Your task to perform on an android device: toggle pop-ups in chrome Image 0: 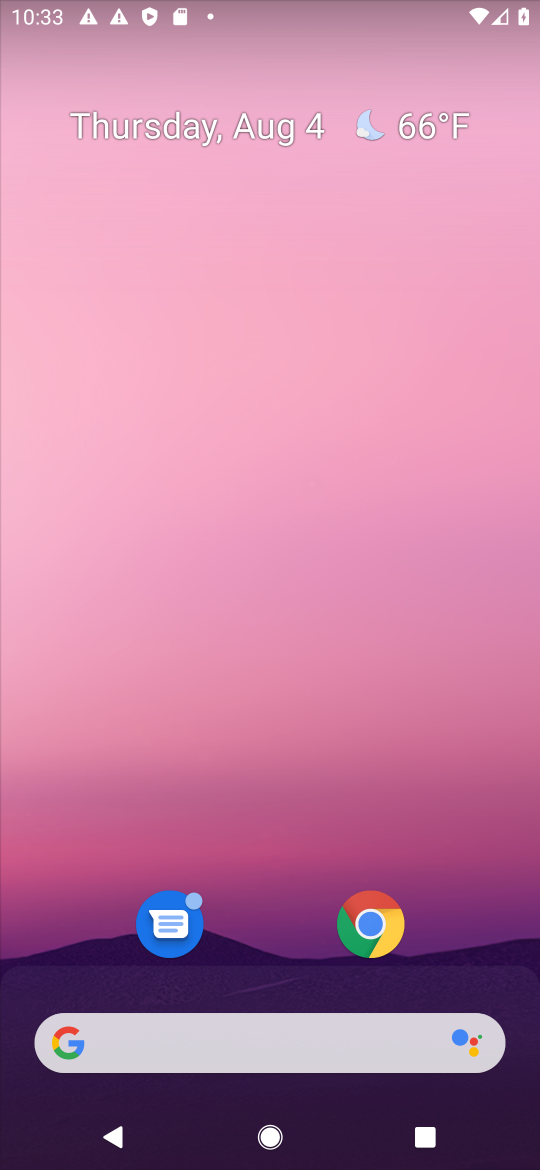
Step 0: click (375, 927)
Your task to perform on an android device: toggle pop-ups in chrome Image 1: 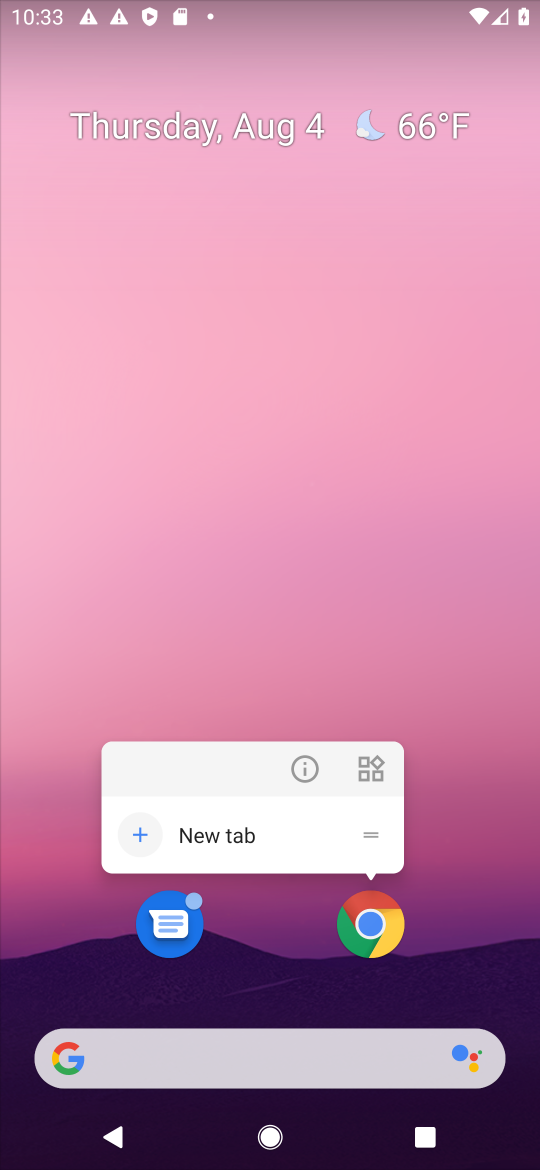
Step 1: click (382, 920)
Your task to perform on an android device: toggle pop-ups in chrome Image 2: 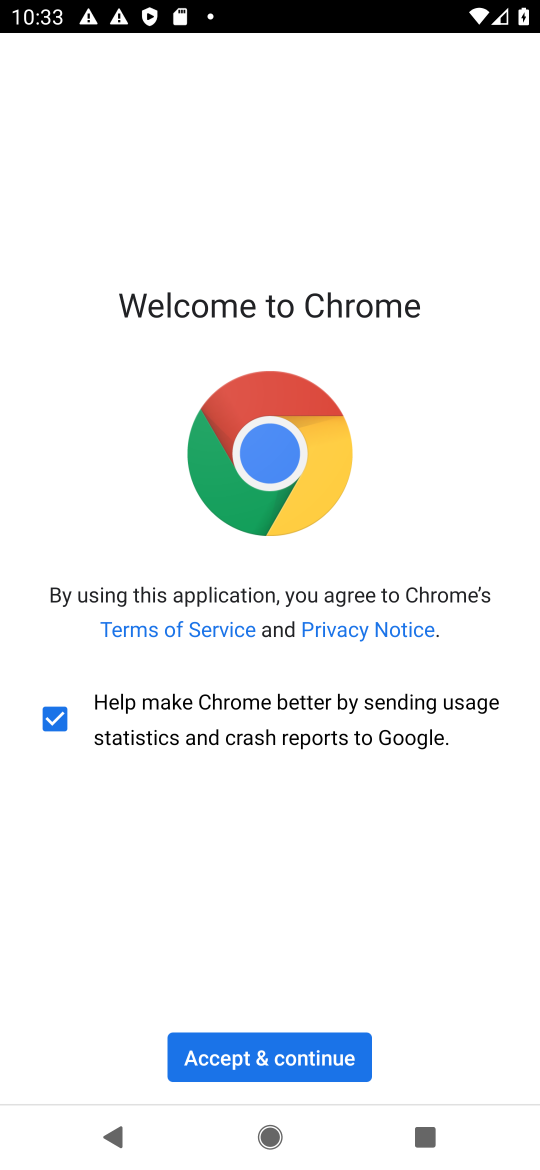
Step 2: click (303, 1057)
Your task to perform on an android device: toggle pop-ups in chrome Image 3: 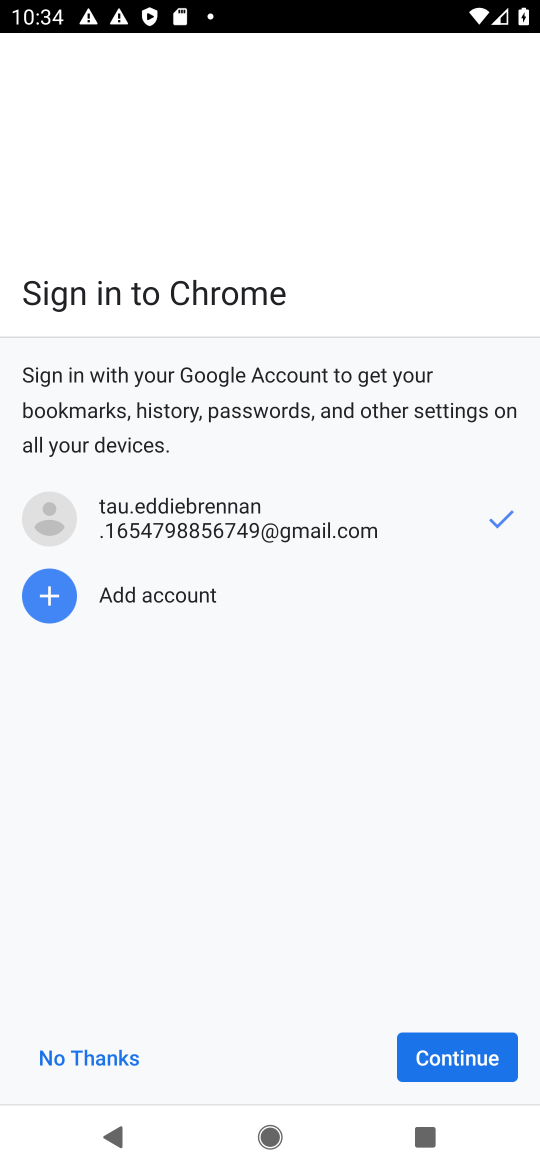
Step 3: click (471, 1060)
Your task to perform on an android device: toggle pop-ups in chrome Image 4: 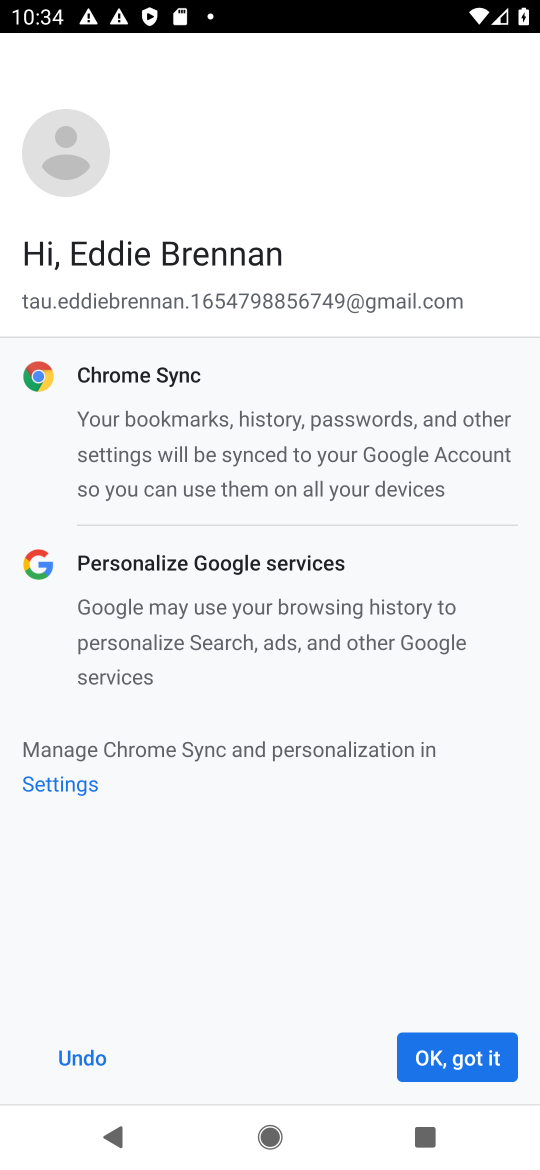
Step 4: click (458, 1055)
Your task to perform on an android device: toggle pop-ups in chrome Image 5: 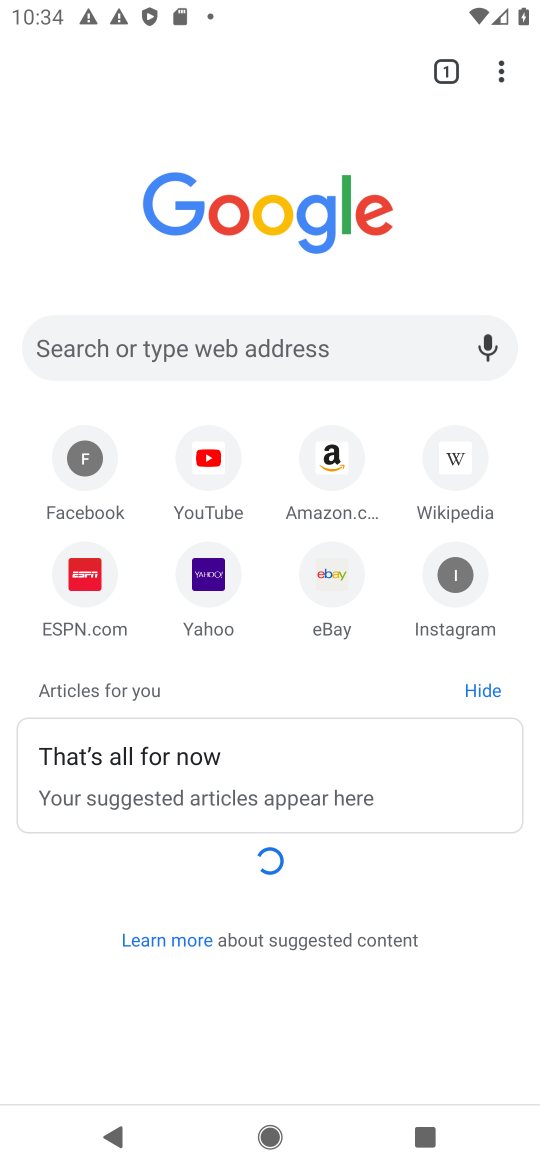
Step 5: drag from (498, 64) to (311, 605)
Your task to perform on an android device: toggle pop-ups in chrome Image 6: 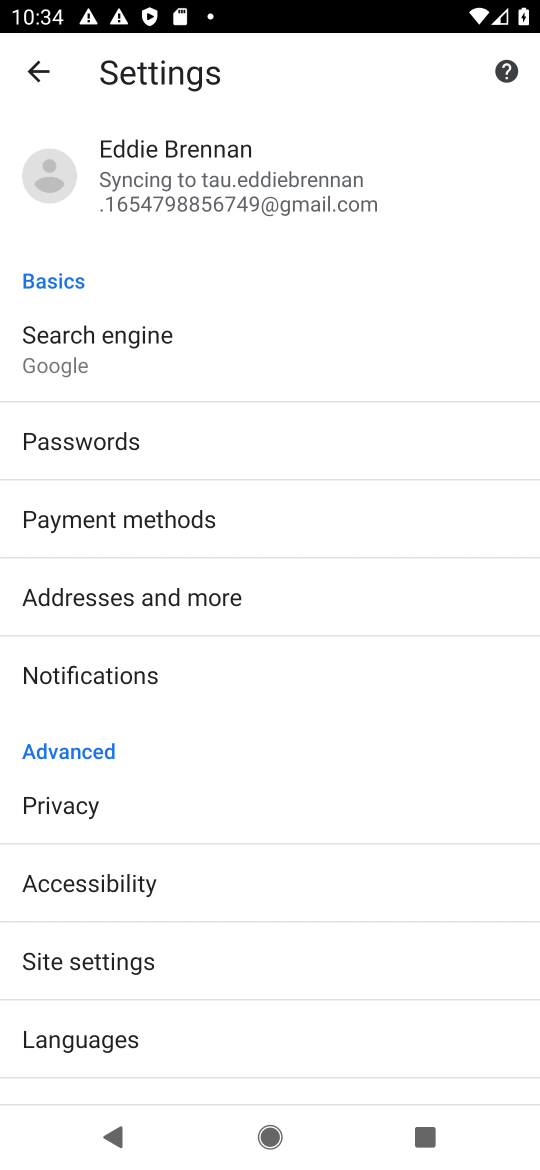
Step 6: drag from (178, 931) to (420, 323)
Your task to perform on an android device: toggle pop-ups in chrome Image 7: 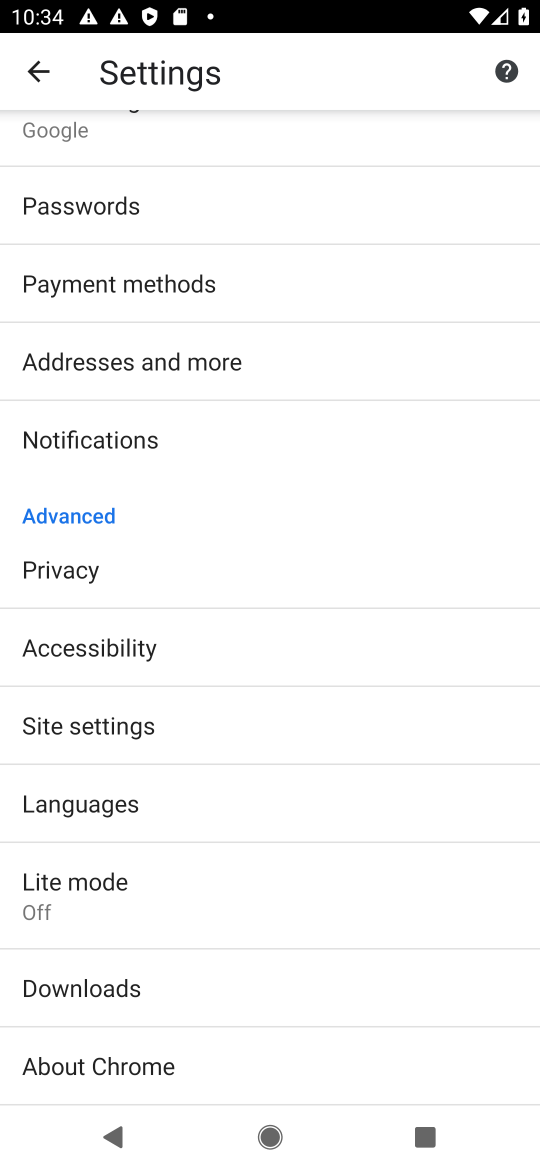
Step 7: click (123, 727)
Your task to perform on an android device: toggle pop-ups in chrome Image 8: 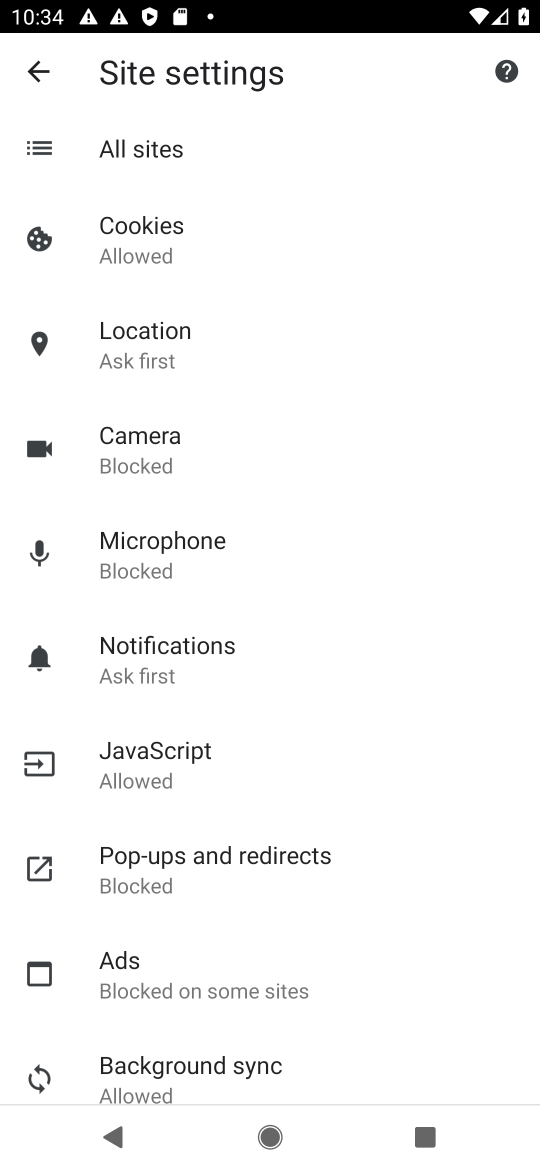
Step 8: click (173, 871)
Your task to perform on an android device: toggle pop-ups in chrome Image 9: 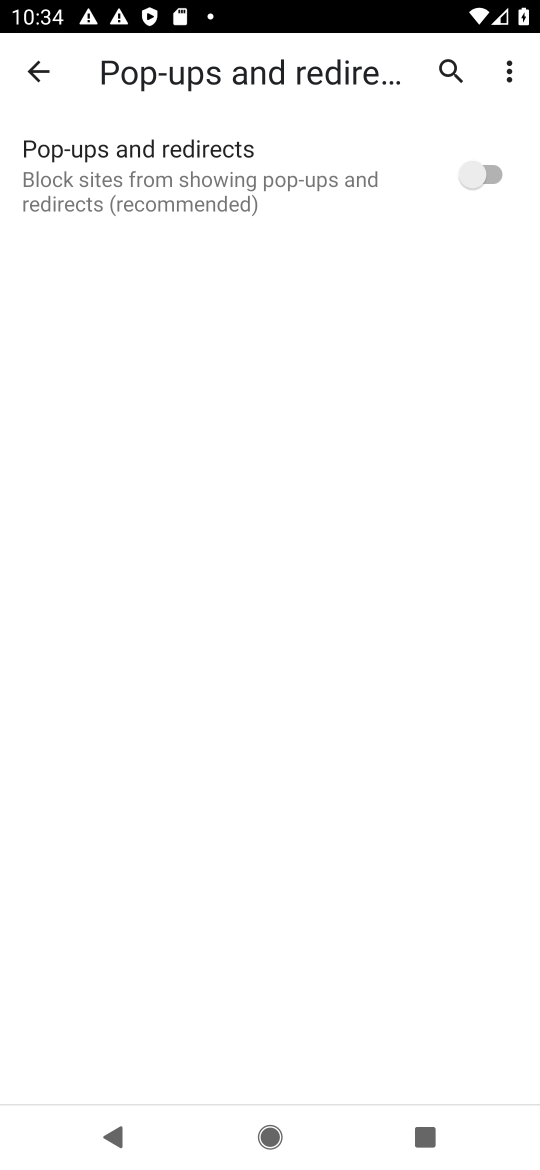
Step 9: click (485, 165)
Your task to perform on an android device: toggle pop-ups in chrome Image 10: 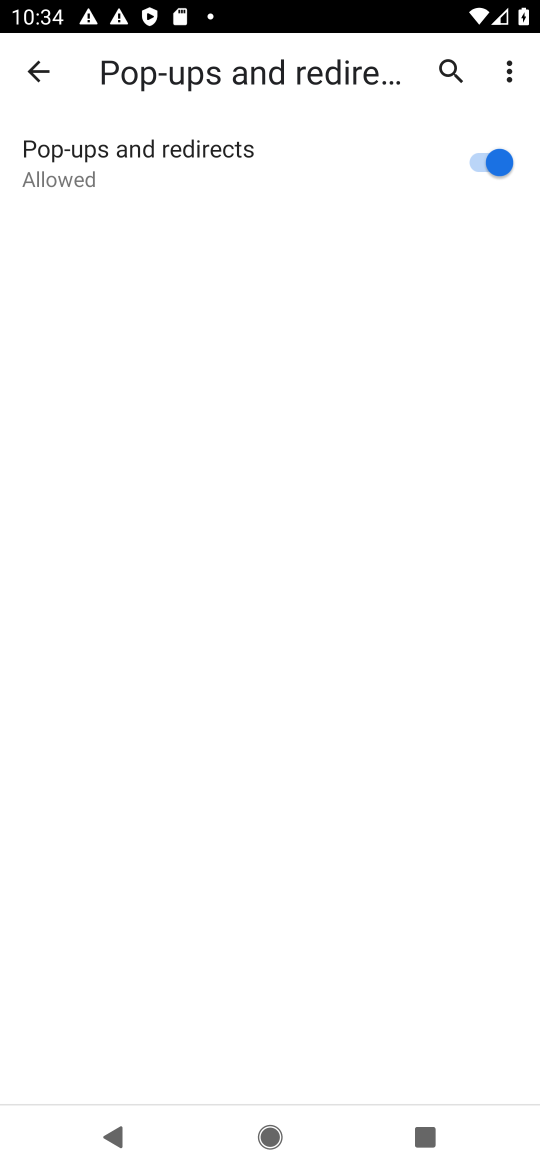
Step 10: task complete